Your task to perform on an android device: Open privacy settings Image 0: 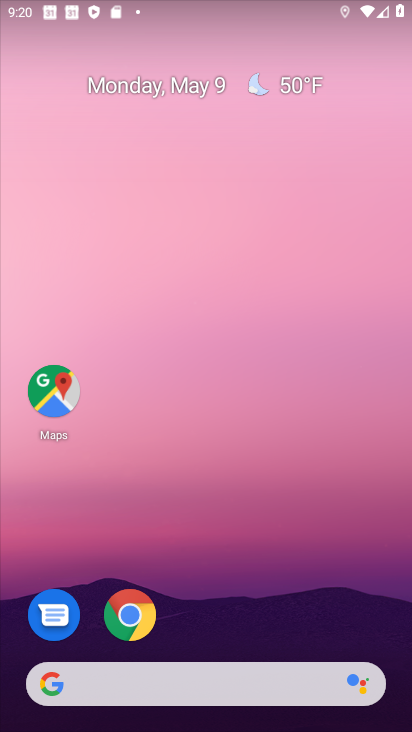
Step 0: drag from (219, 559) to (197, 0)
Your task to perform on an android device: Open privacy settings Image 1: 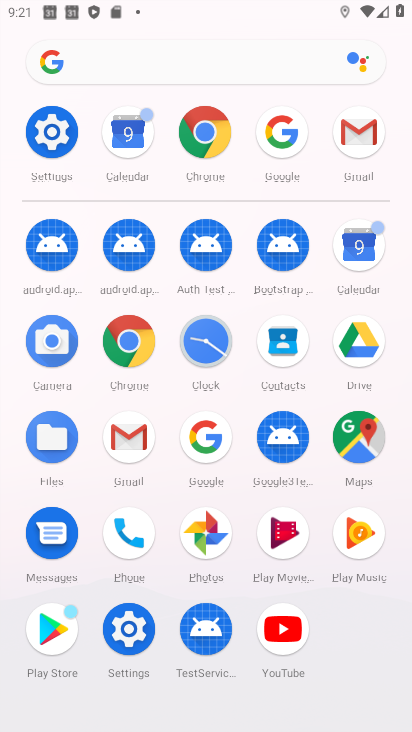
Step 1: drag from (10, 553) to (10, 272)
Your task to perform on an android device: Open privacy settings Image 2: 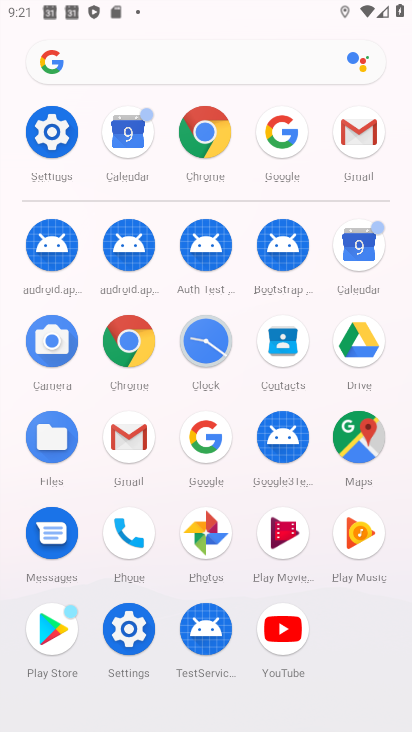
Step 2: click (126, 620)
Your task to perform on an android device: Open privacy settings Image 3: 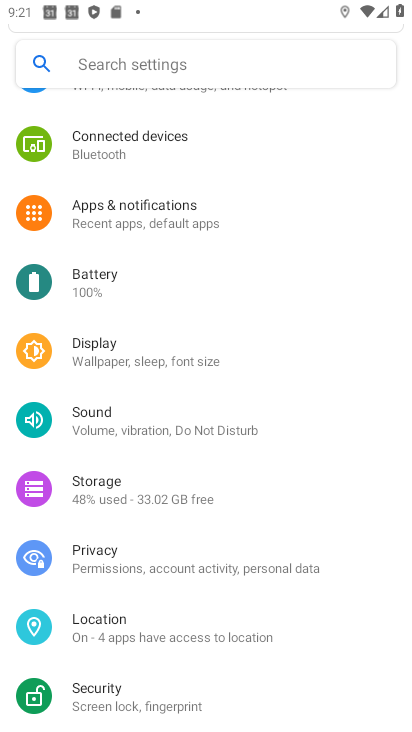
Step 3: drag from (262, 373) to (282, 639)
Your task to perform on an android device: Open privacy settings Image 4: 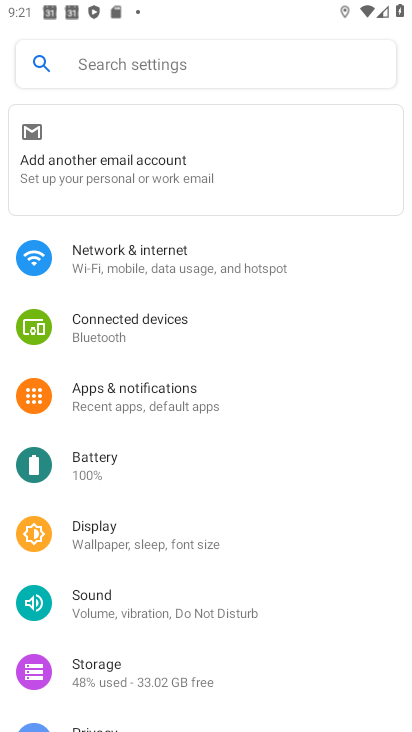
Step 4: drag from (247, 590) to (257, 211)
Your task to perform on an android device: Open privacy settings Image 5: 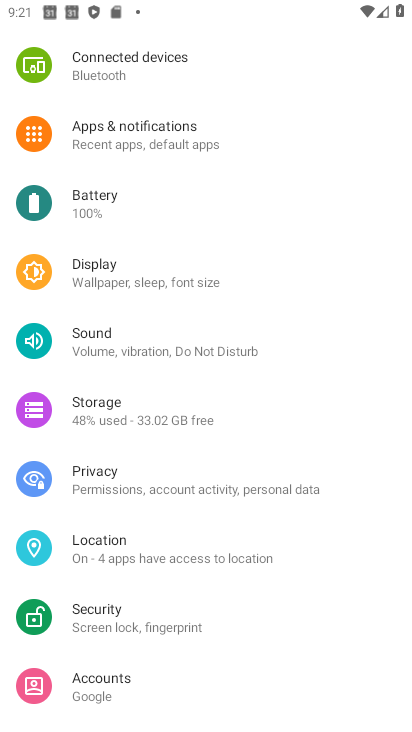
Step 5: press back button
Your task to perform on an android device: Open privacy settings Image 6: 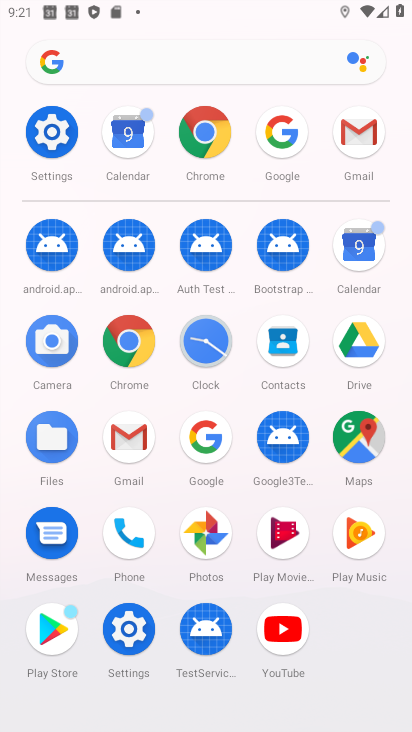
Step 6: click (132, 334)
Your task to perform on an android device: Open privacy settings Image 7: 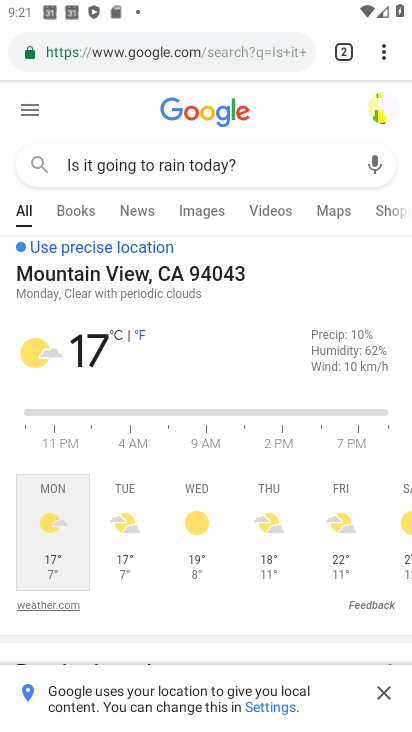
Step 7: drag from (377, 55) to (212, 571)
Your task to perform on an android device: Open privacy settings Image 8: 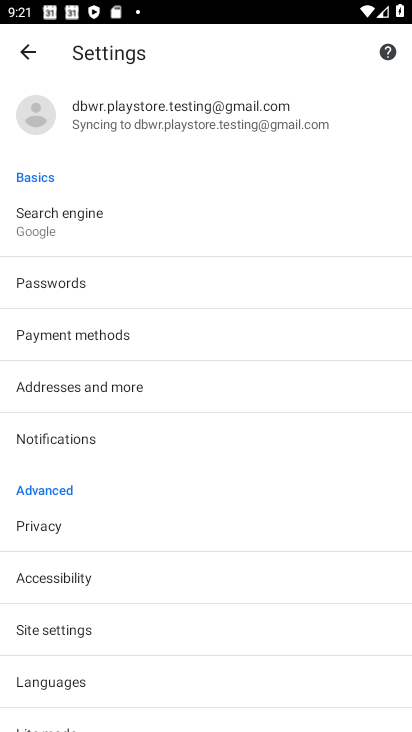
Step 8: click (99, 522)
Your task to perform on an android device: Open privacy settings Image 9: 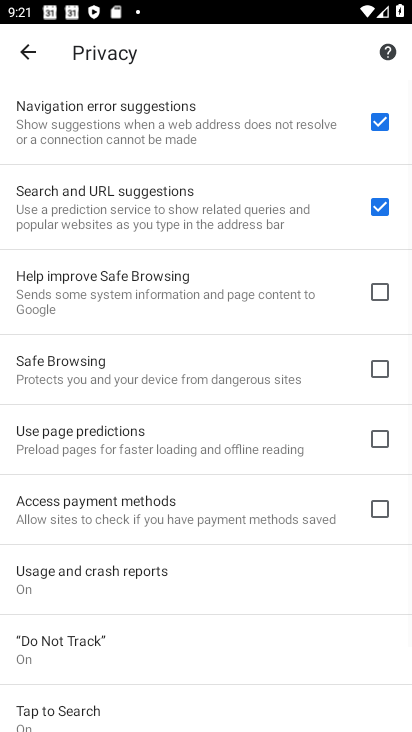
Step 9: task complete